Your task to perform on an android device: Open eBay Image 0: 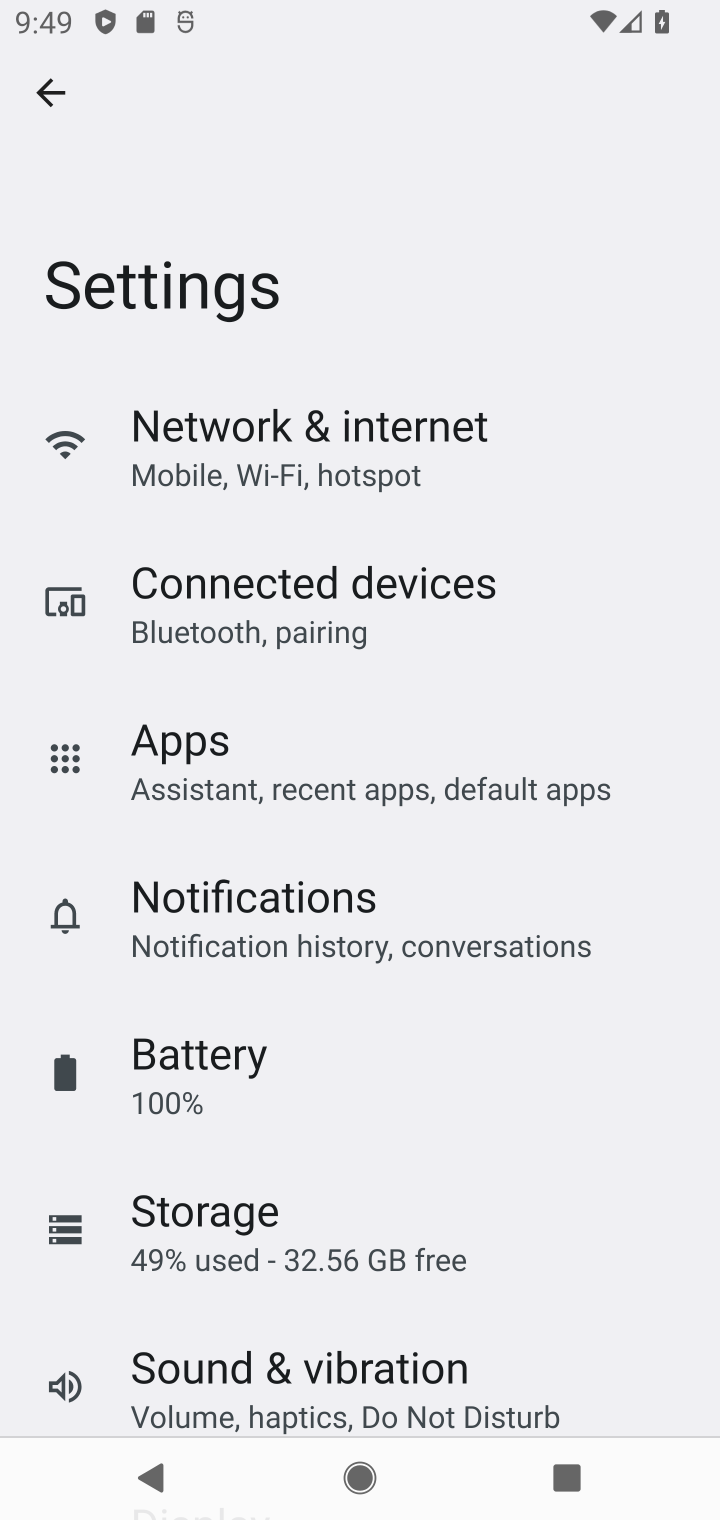
Step 0: press home button
Your task to perform on an android device: Open eBay Image 1: 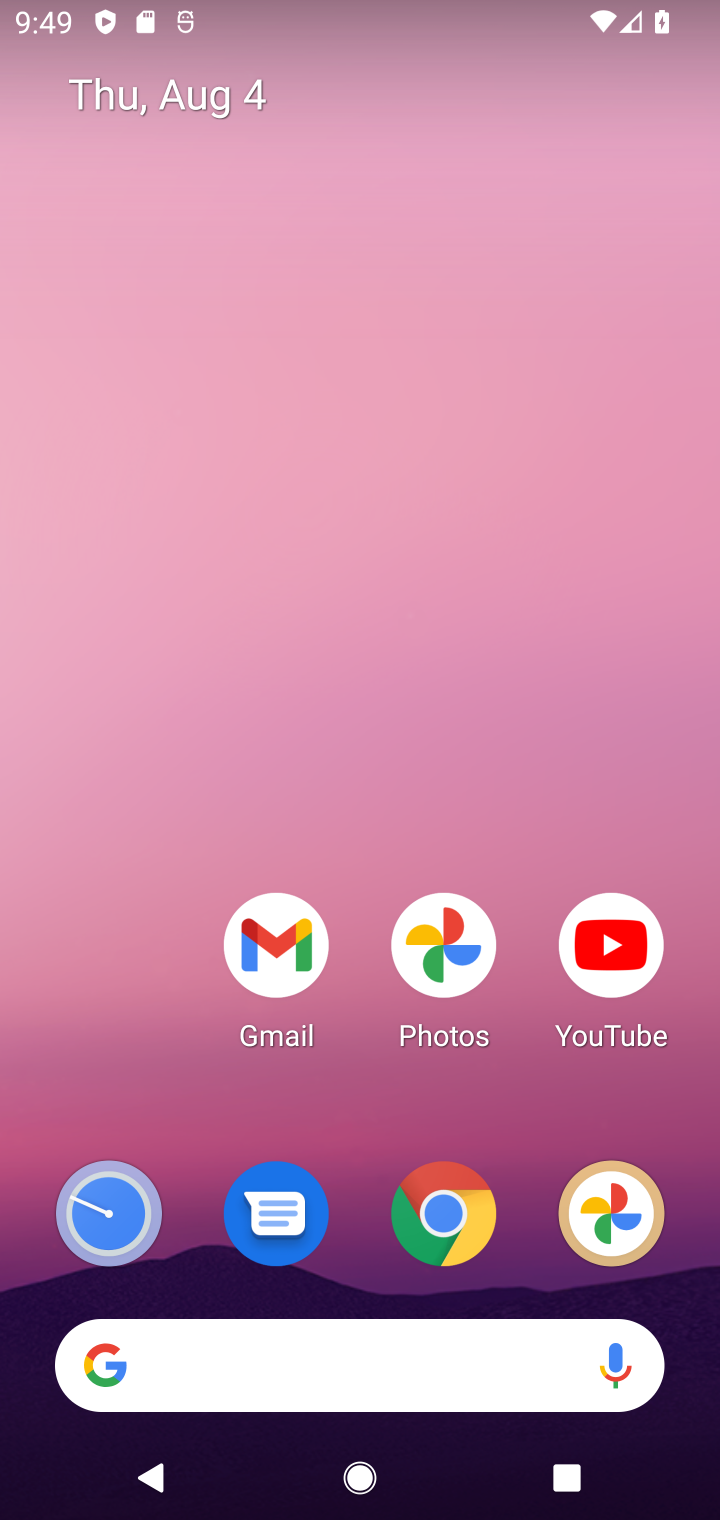
Step 1: drag from (340, 1040) to (299, 35)
Your task to perform on an android device: Open eBay Image 2: 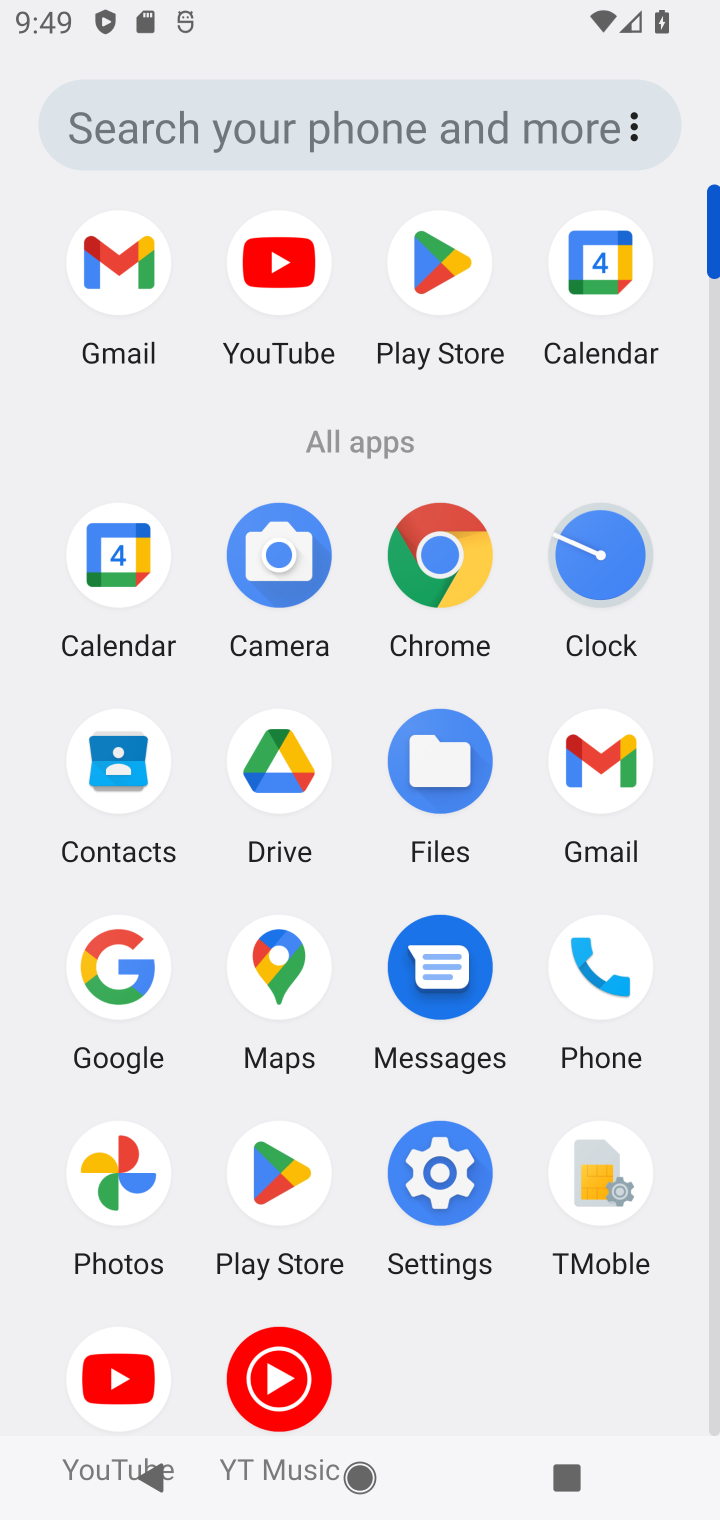
Step 2: click (424, 557)
Your task to perform on an android device: Open eBay Image 3: 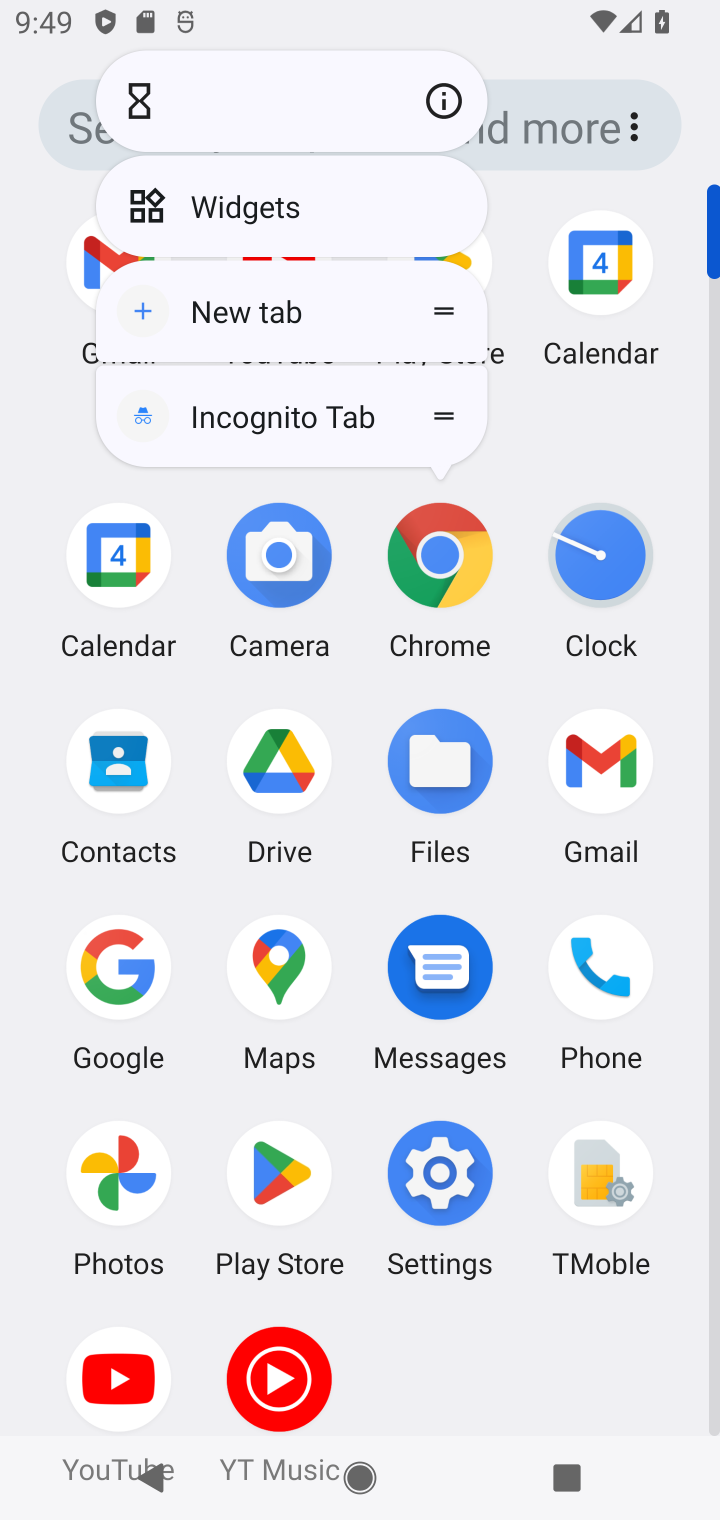
Step 3: click (472, 554)
Your task to perform on an android device: Open eBay Image 4: 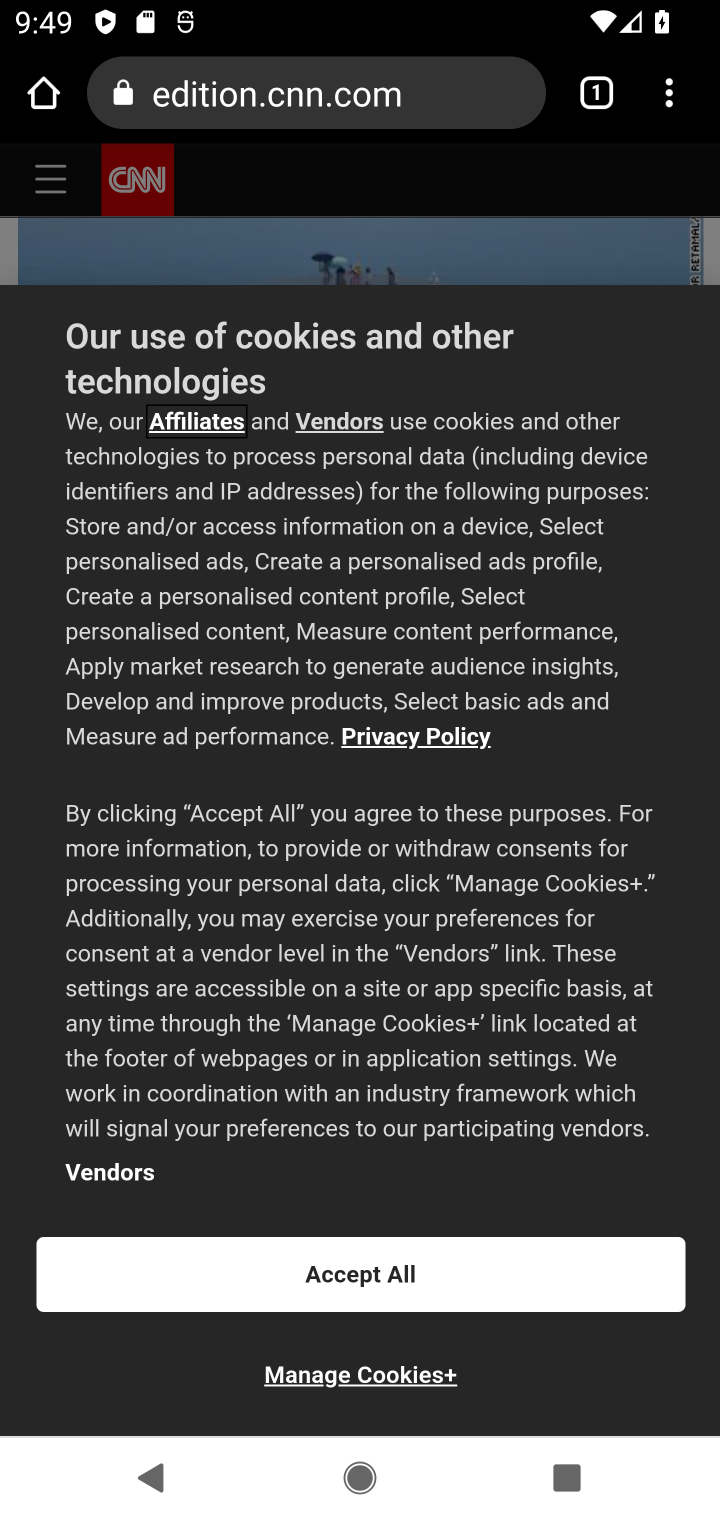
Step 4: click (321, 99)
Your task to perform on an android device: Open eBay Image 5: 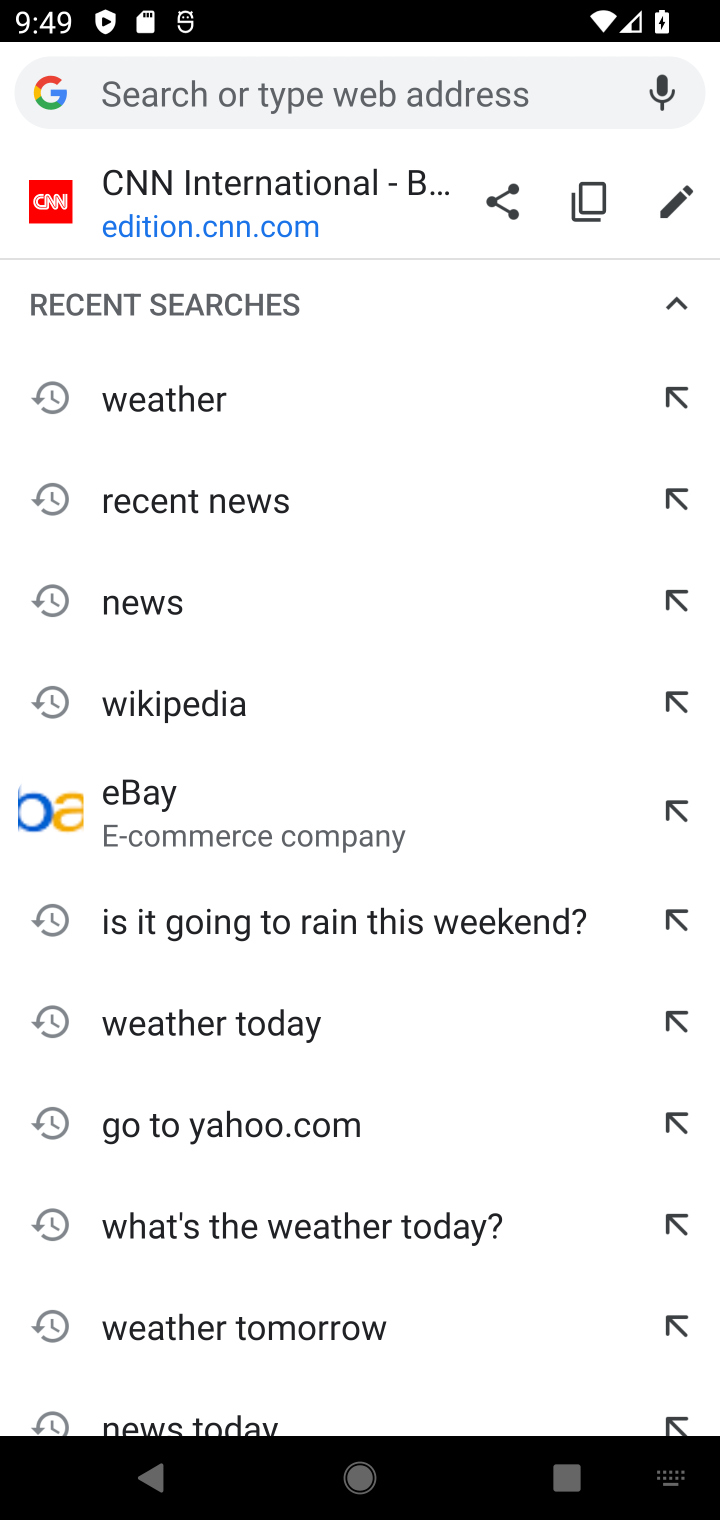
Step 5: type "eBay"
Your task to perform on an android device: Open eBay Image 6: 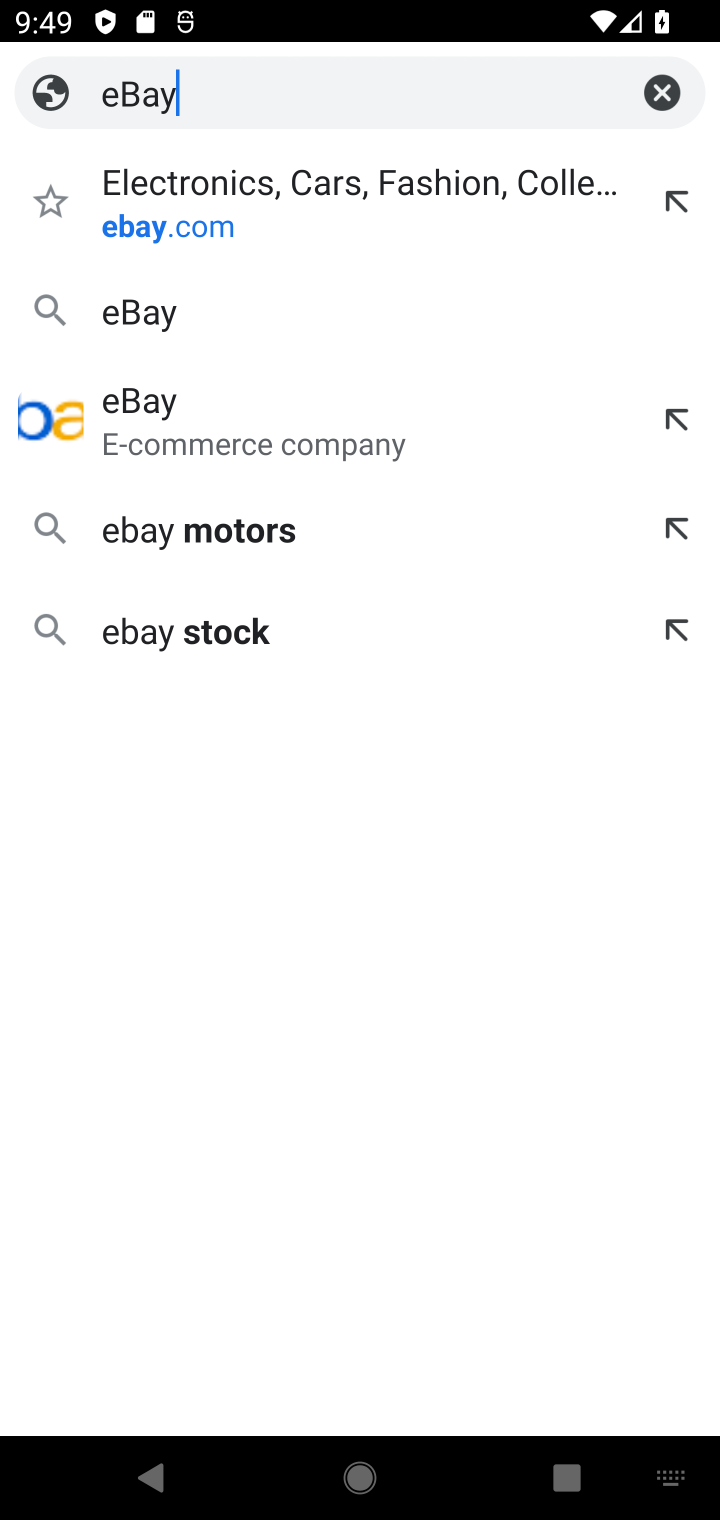
Step 6: click (232, 224)
Your task to perform on an android device: Open eBay Image 7: 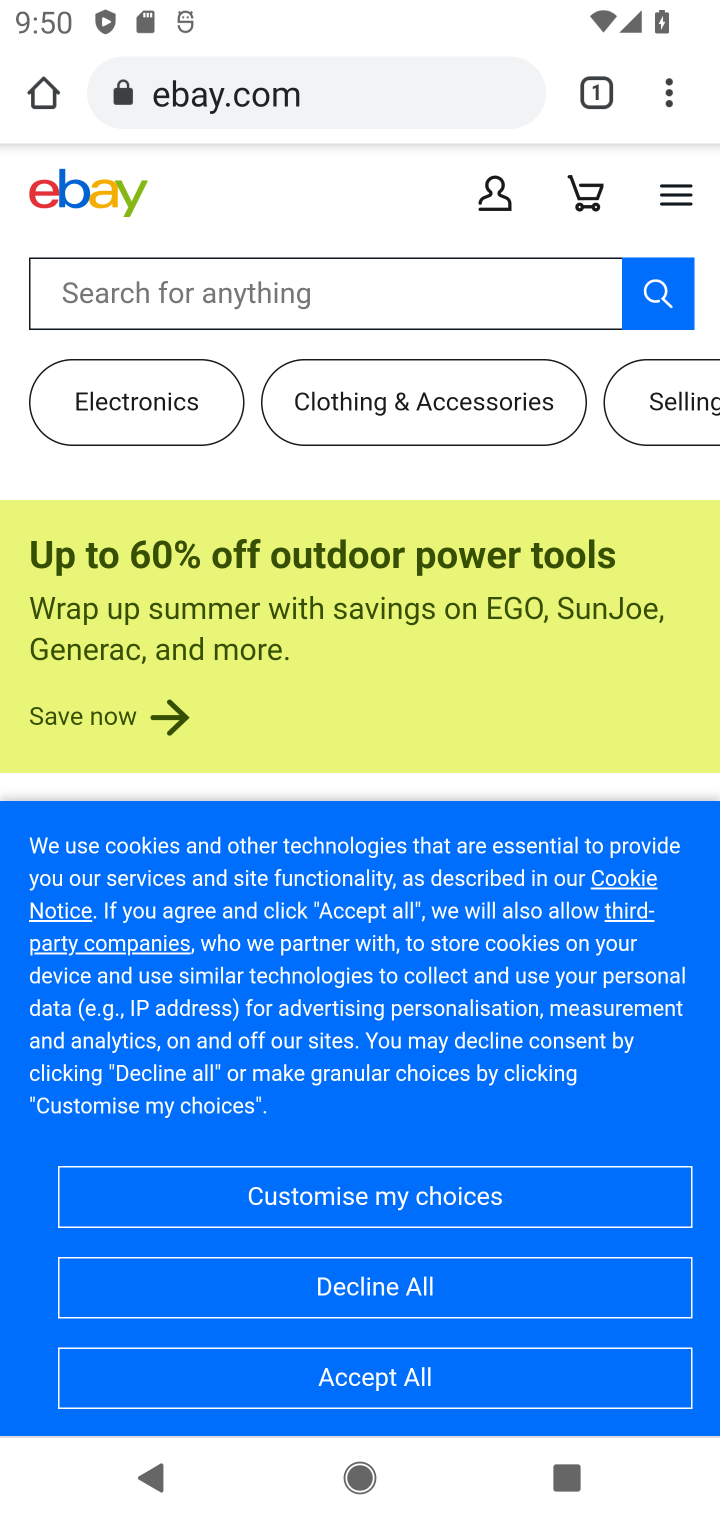
Step 7: task complete